Your task to perform on an android device: Search for Italian restaurants on Maps Image 0: 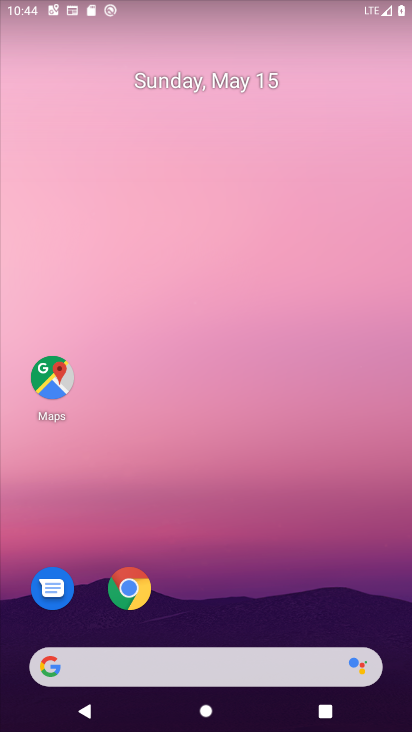
Step 0: click (45, 363)
Your task to perform on an android device: Search for Italian restaurants on Maps Image 1: 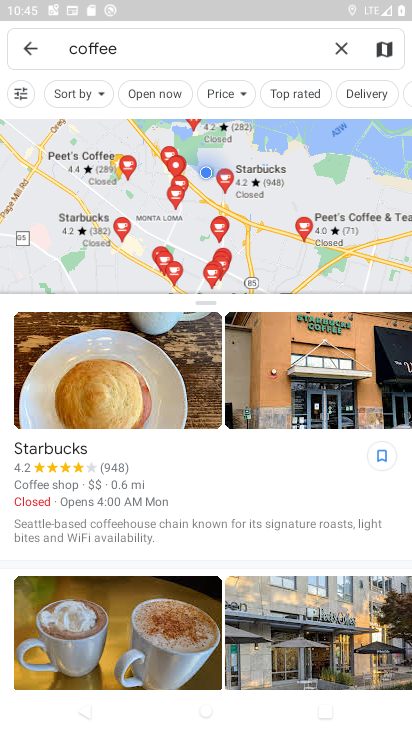
Step 1: click (344, 41)
Your task to perform on an android device: Search for Italian restaurants on Maps Image 2: 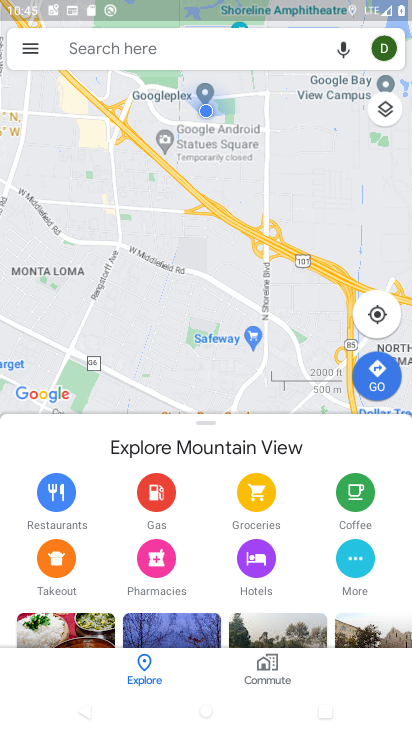
Step 2: click (168, 52)
Your task to perform on an android device: Search for Italian restaurants on Maps Image 3: 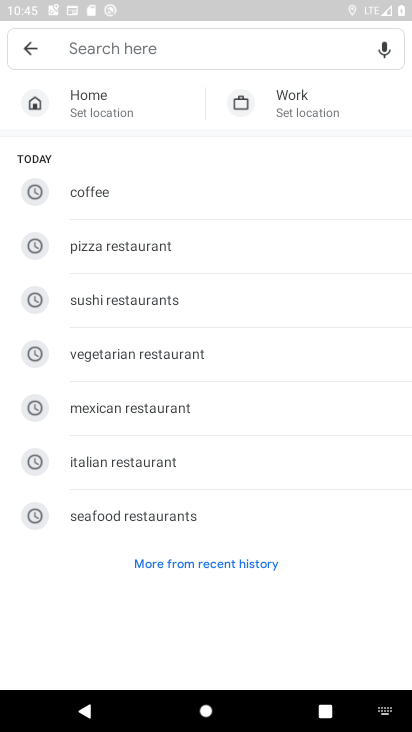
Step 3: click (125, 459)
Your task to perform on an android device: Search for Italian restaurants on Maps Image 4: 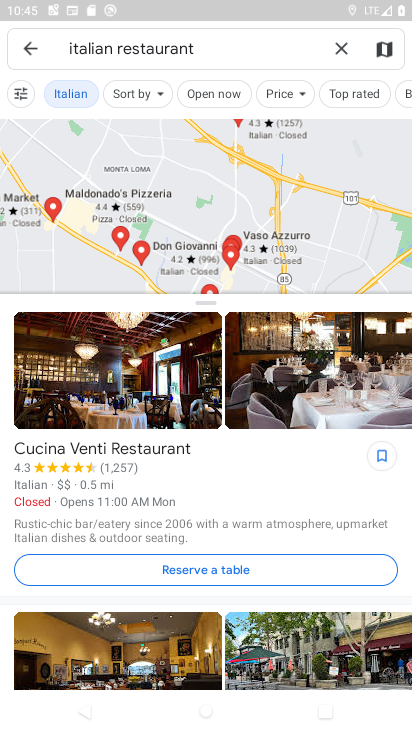
Step 4: task complete